Your task to perform on an android device: turn on location history Image 0: 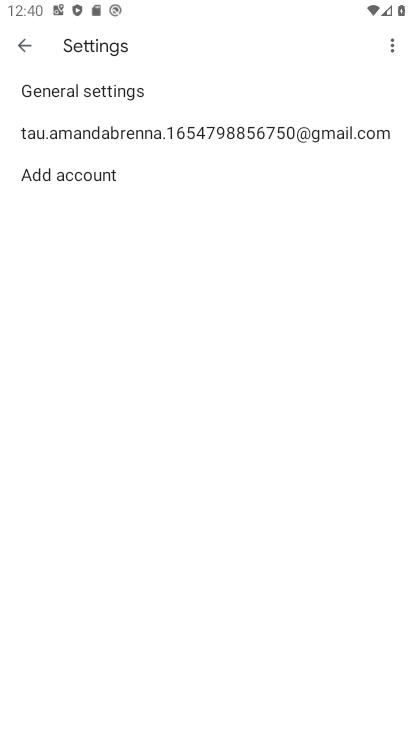
Step 0: press home button
Your task to perform on an android device: turn on location history Image 1: 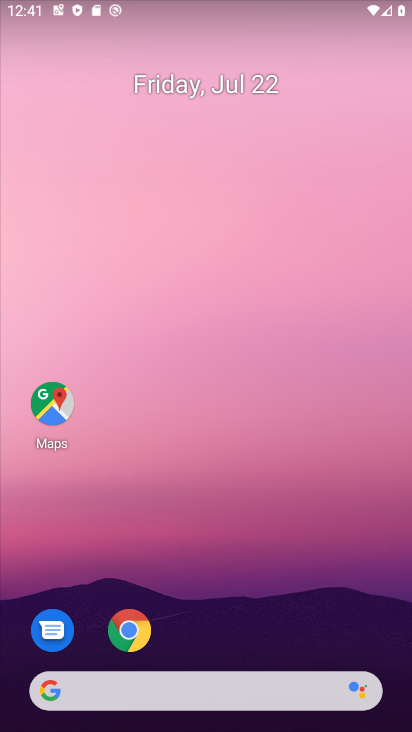
Step 1: click (34, 395)
Your task to perform on an android device: turn on location history Image 2: 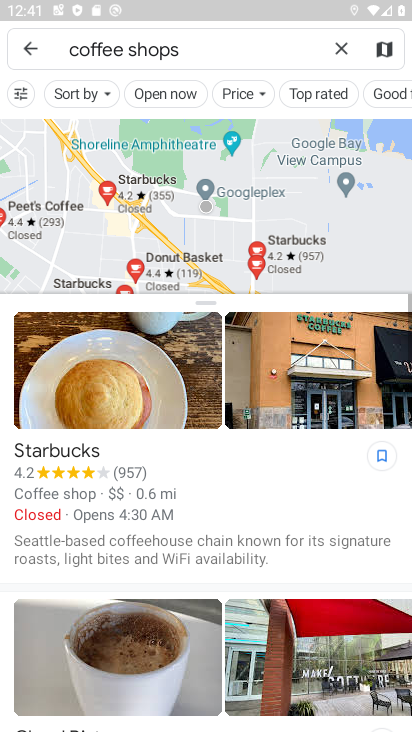
Step 2: click (14, 48)
Your task to perform on an android device: turn on location history Image 3: 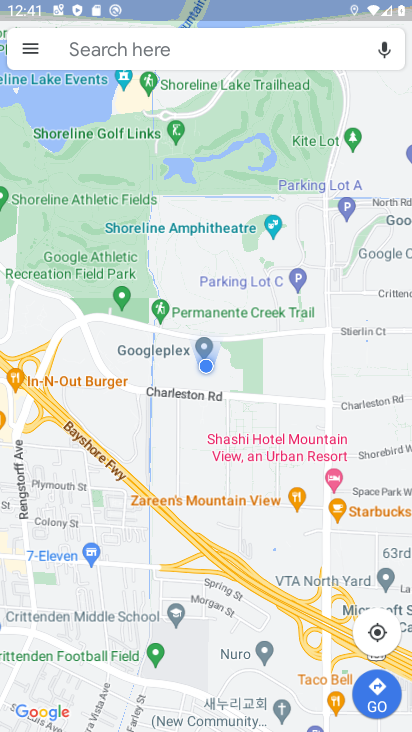
Step 3: click (31, 47)
Your task to perform on an android device: turn on location history Image 4: 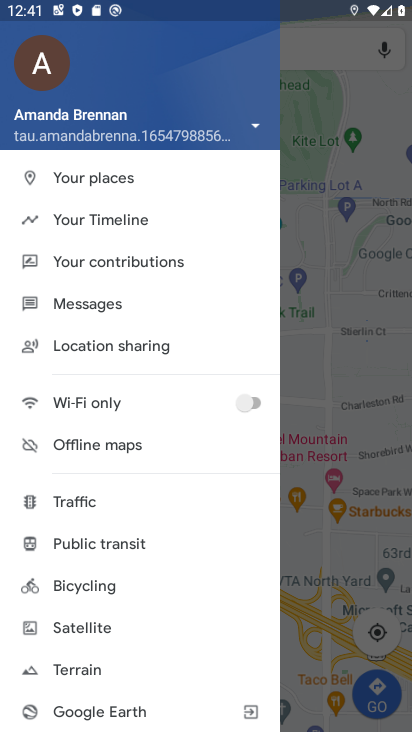
Step 4: click (109, 222)
Your task to perform on an android device: turn on location history Image 5: 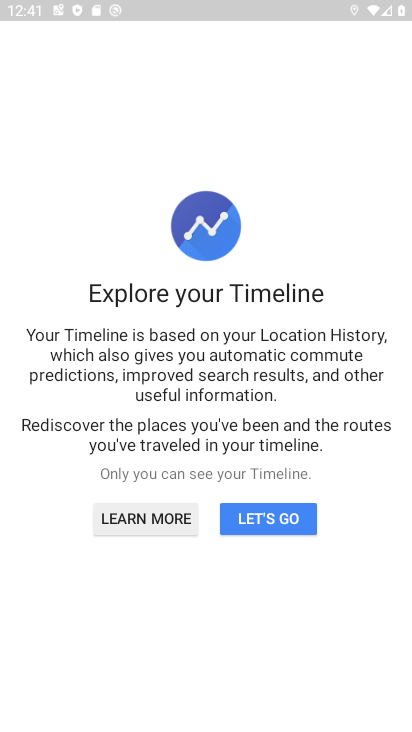
Step 5: click (240, 523)
Your task to perform on an android device: turn on location history Image 6: 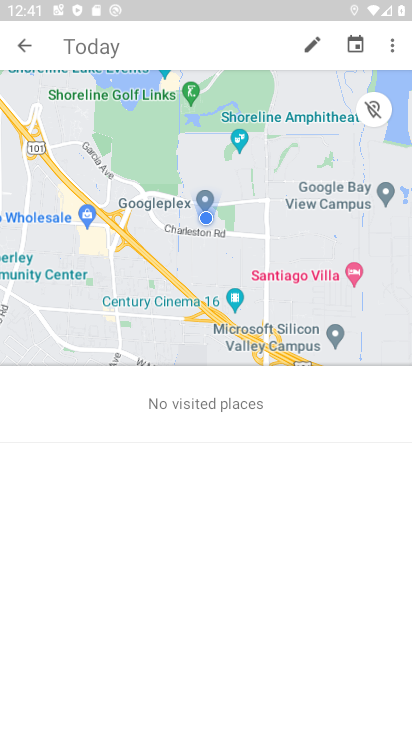
Step 6: click (386, 46)
Your task to perform on an android device: turn on location history Image 7: 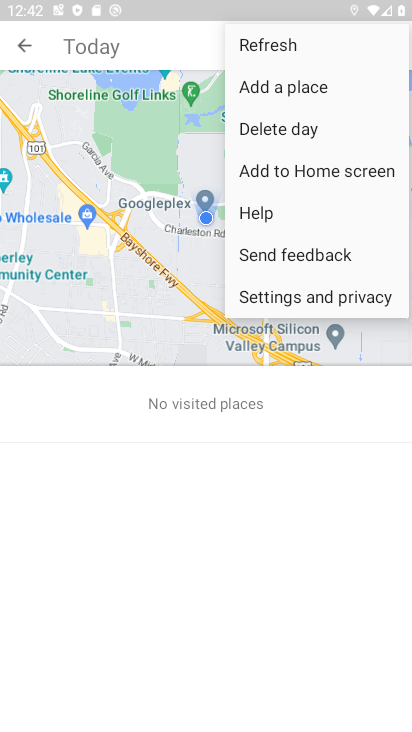
Step 7: click (309, 297)
Your task to perform on an android device: turn on location history Image 8: 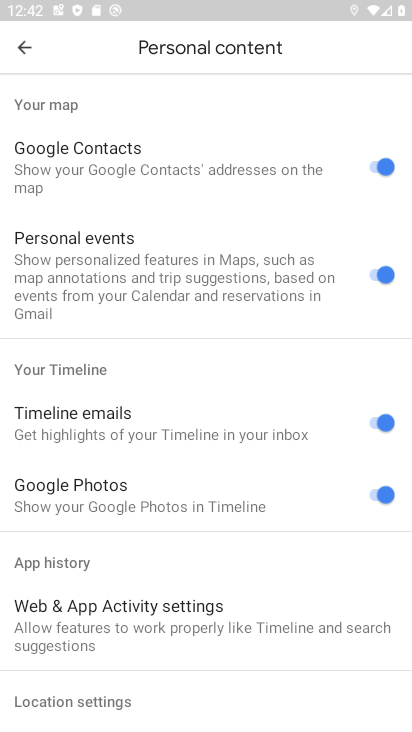
Step 8: drag from (184, 569) to (163, 229)
Your task to perform on an android device: turn on location history Image 9: 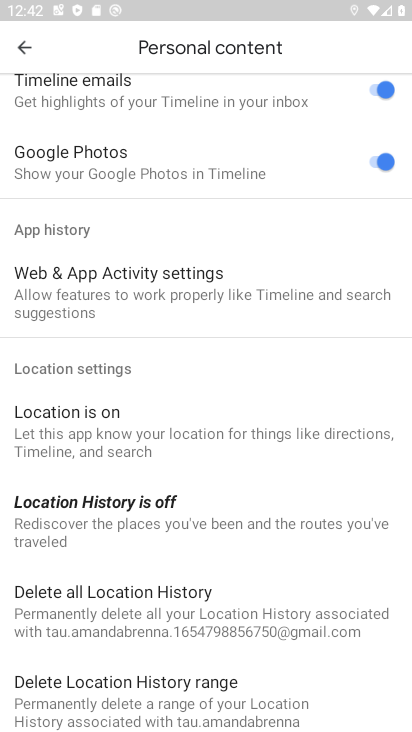
Step 9: click (148, 498)
Your task to perform on an android device: turn on location history Image 10: 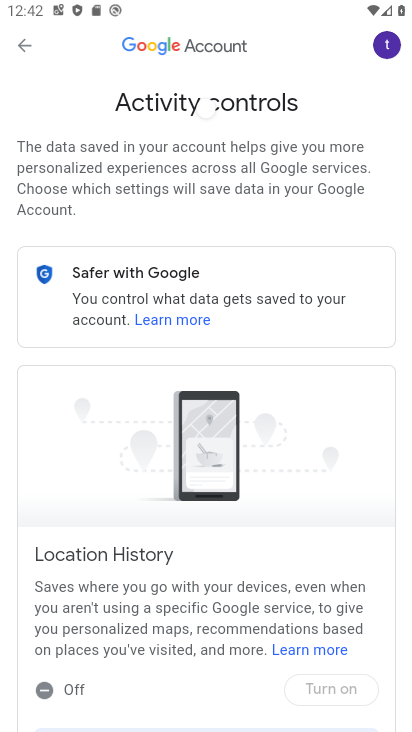
Step 10: drag from (319, 622) to (308, 439)
Your task to perform on an android device: turn on location history Image 11: 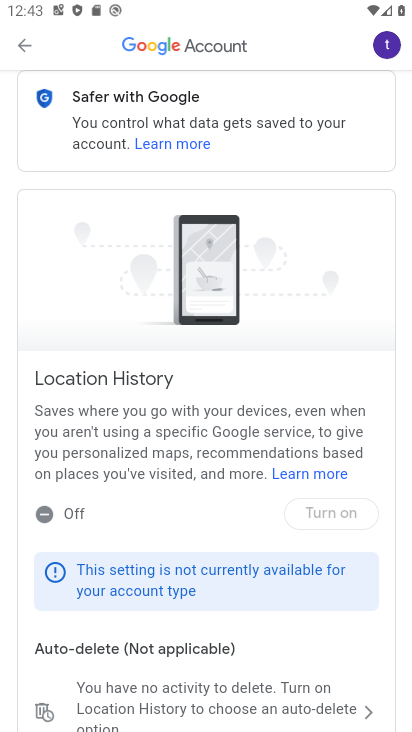
Step 11: drag from (275, 693) to (307, 504)
Your task to perform on an android device: turn on location history Image 12: 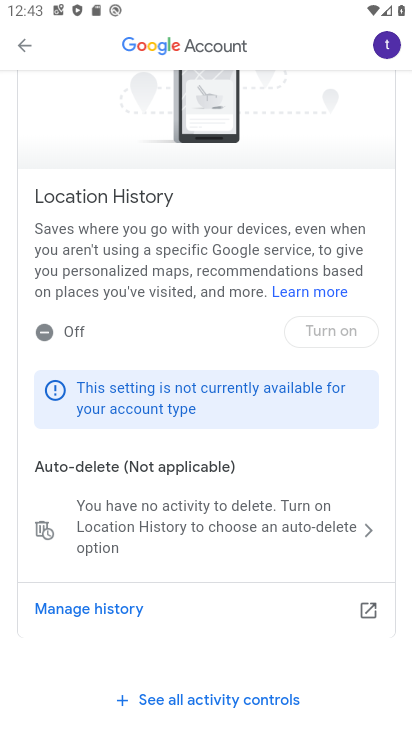
Step 12: click (306, 318)
Your task to perform on an android device: turn on location history Image 13: 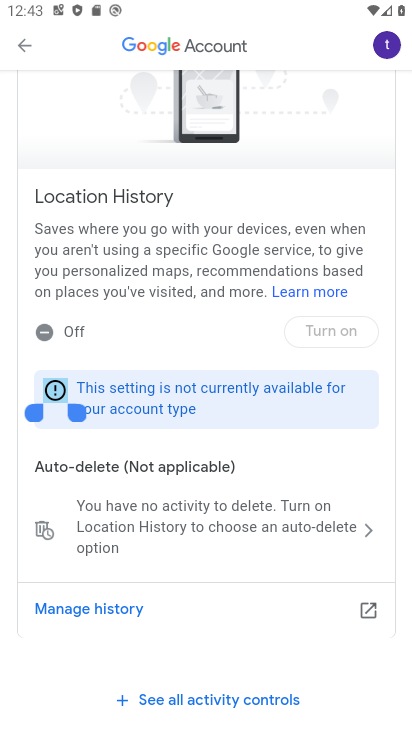
Step 13: click (323, 328)
Your task to perform on an android device: turn on location history Image 14: 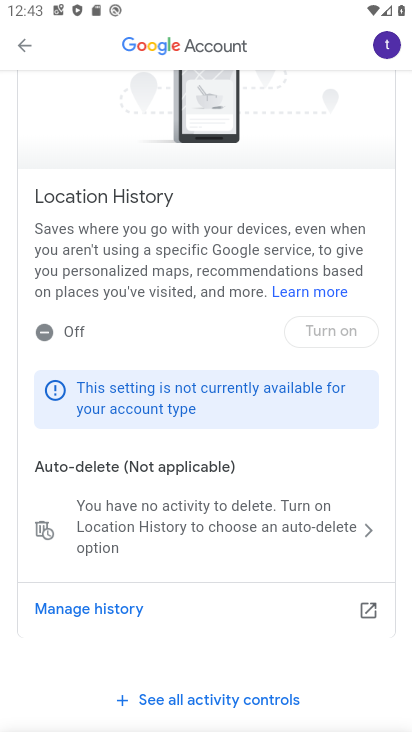
Step 14: click (323, 328)
Your task to perform on an android device: turn on location history Image 15: 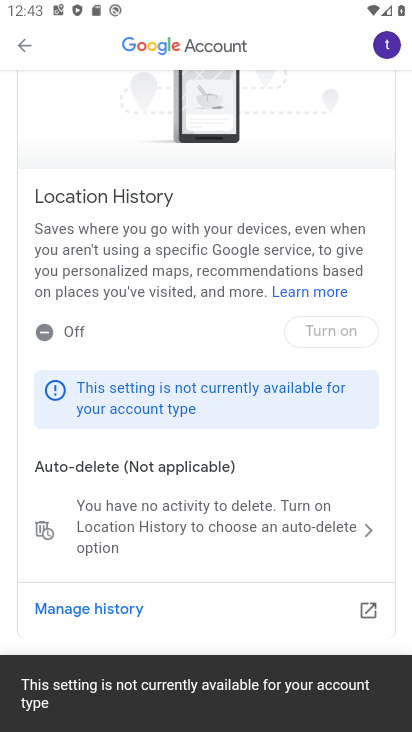
Step 15: click (323, 328)
Your task to perform on an android device: turn on location history Image 16: 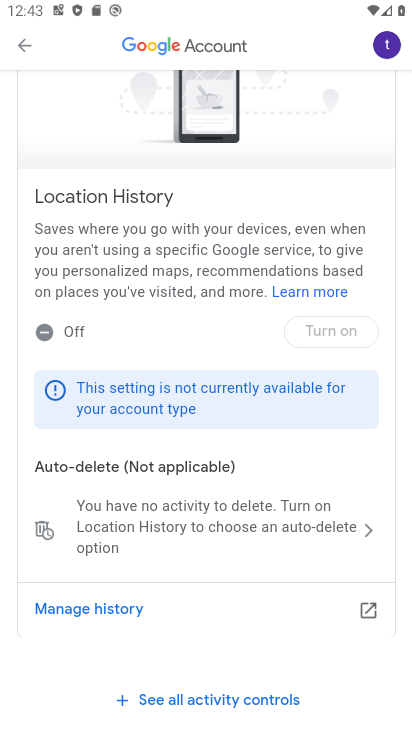
Step 16: task complete